Your task to perform on an android device: open app "Adobe Acrobat Reader" (install if not already installed) and enter user name: "nondescriptly@inbox.com" and password: "negating" Image 0: 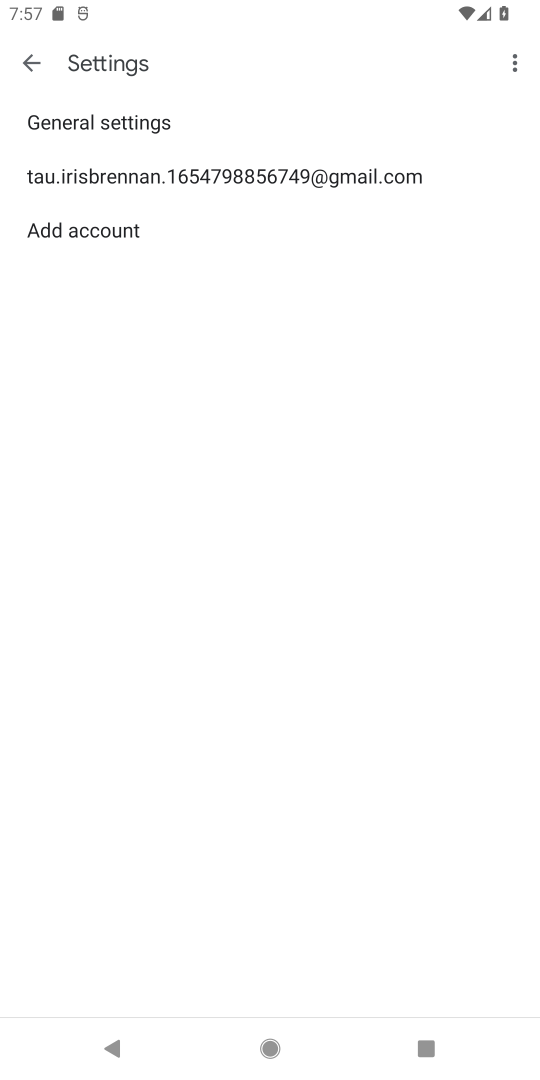
Step 0: press home button
Your task to perform on an android device: open app "Adobe Acrobat Reader" (install if not already installed) and enter user name: "nondescriptly@inbox.com" and password: "negating" Image 1: 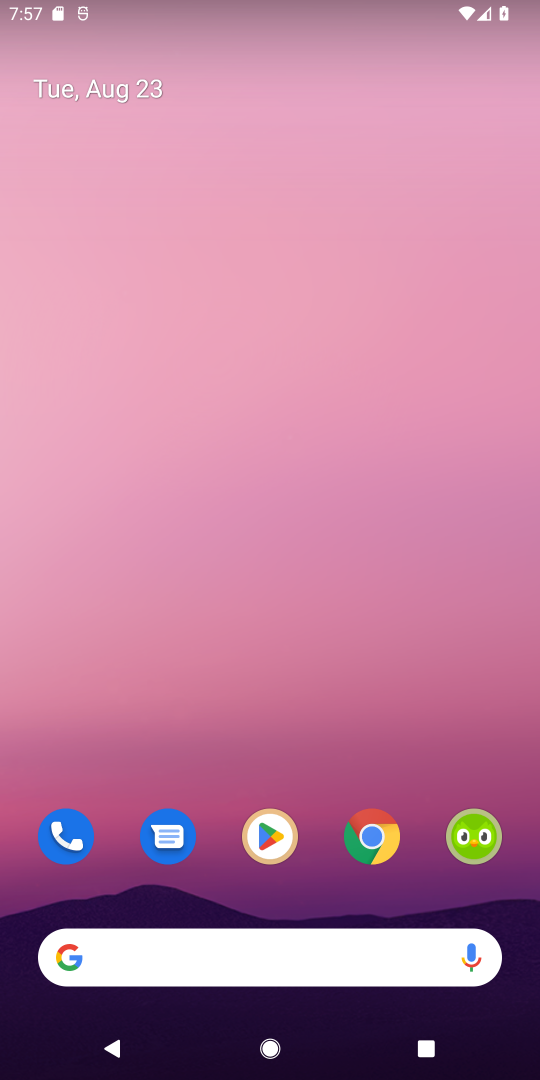
Step 1: click (263, 834)
Your task to perform on an android device: open app "Adobe Acrobat Reader" (install if not already installed) and enter user name: "nondescriptly@inbox.com" and password: "negating" Image 2: 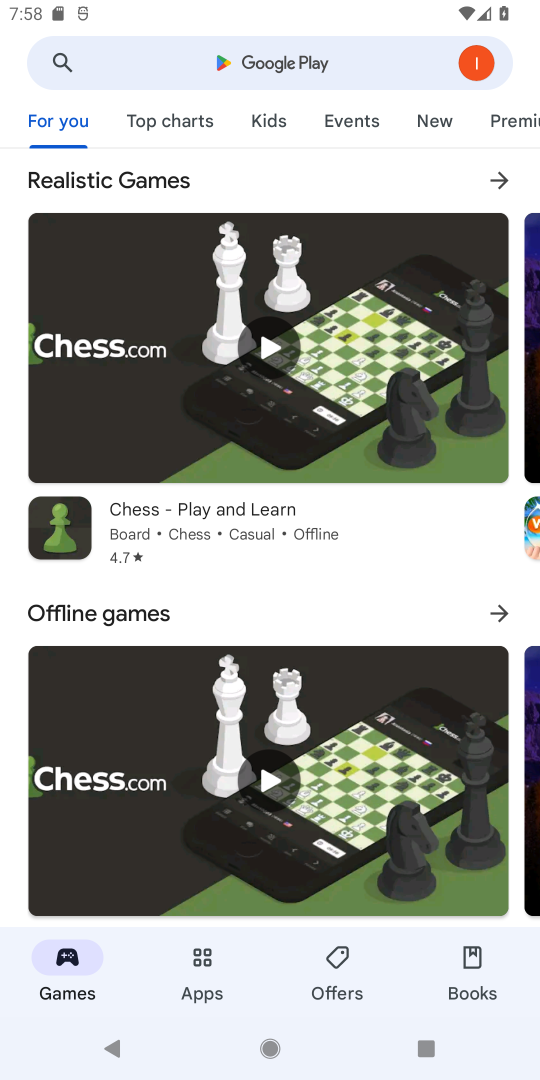
Step 2: click (385, 66)
Your task to perform on an android device: open app "Adobe Acrobat Reader" (install if not already installed) and enter user name: "nondescriptly@inbox.com" and password: "negating" Image 3: 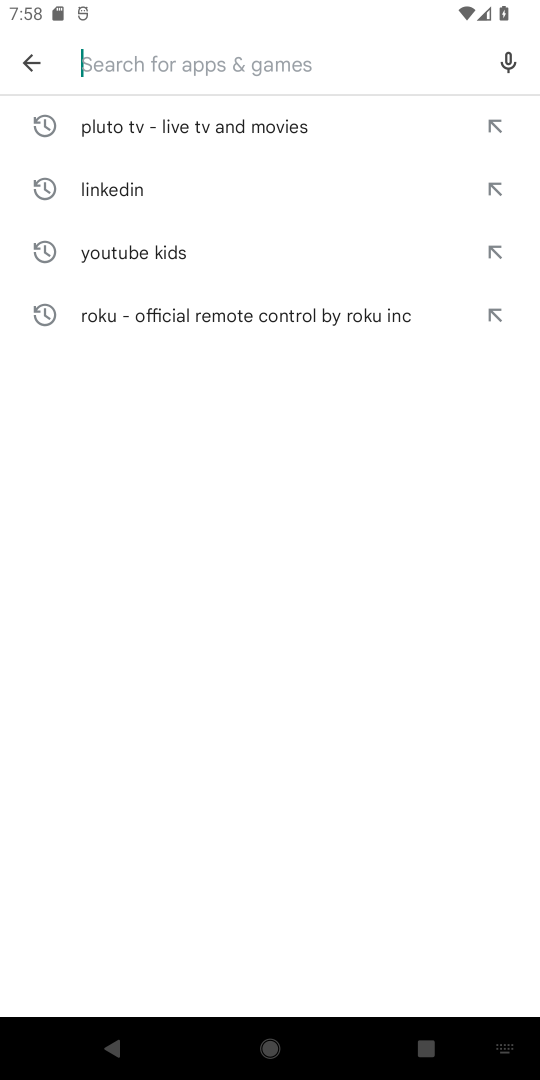
Step 3: type "Adobe Acrobat Reader"
Your task to perform on an android device: open app "Adobe Acrobat Reader" (install if not already installed) and enter user name: "nondescriptly@inbox.com" and password: "negating" Image 4: 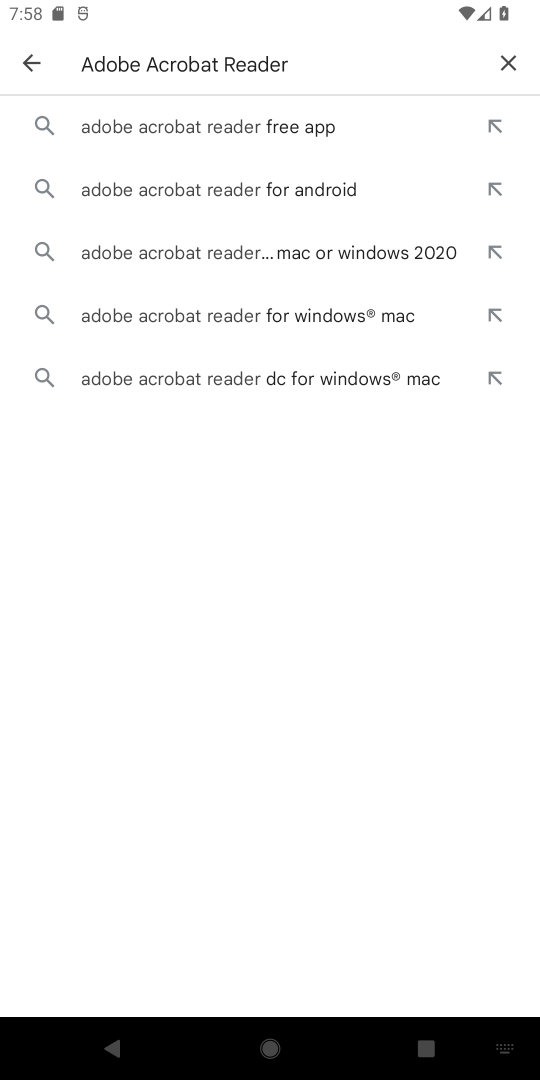
Step 4: click (296, 130)
Your task to perform on an android device: open app "Adobe Acrobat Reader" (install if not already installed) and enter user name: "nondescriptly@inbox.com" and password: "negating" Image 5: 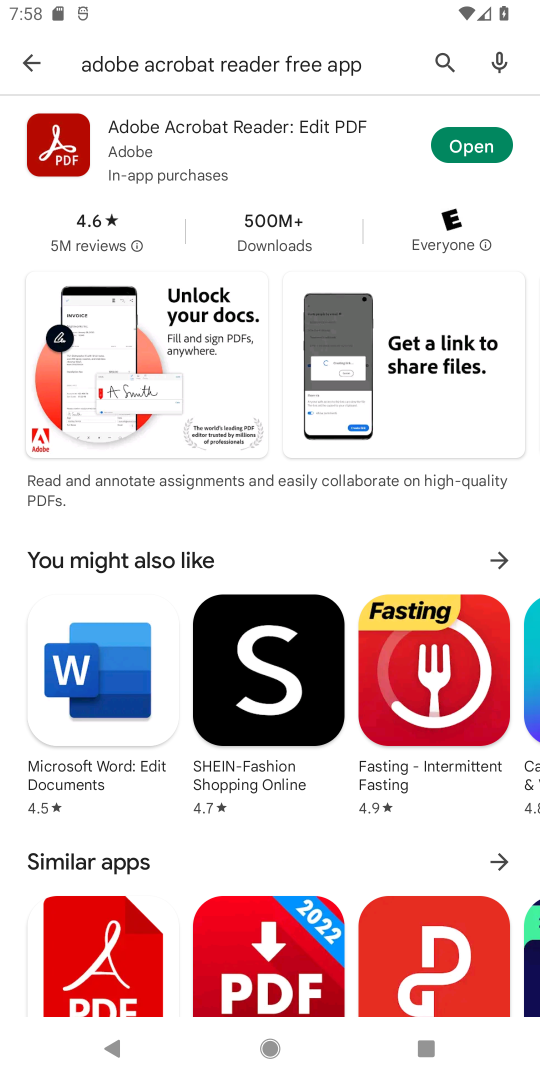
Step 5: click (468, 153)
Your task to perform on an android device: open app "Adobe Acrobat Reader" (install if not already installed) and enter user name: "nondescriptly@inbox.com" and password: "negating" Image 6: 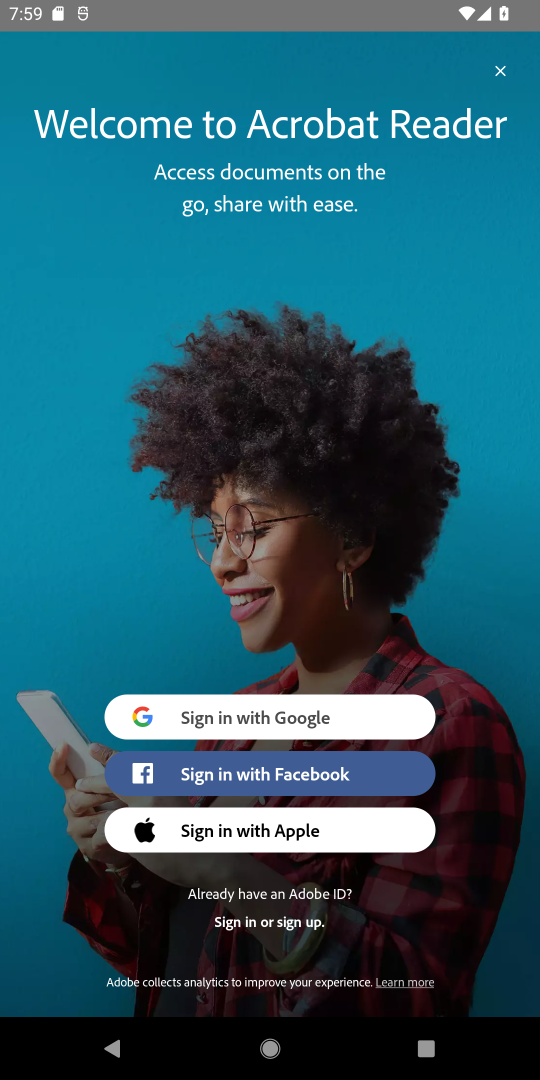
Step 6: click (275, 924)
Your task to perform on an android device: open app "Adobe Acrobat Reader" (install if not already installed) and enter user name: "nondescriptly@inbox.com" and password: "negating" Image 7: 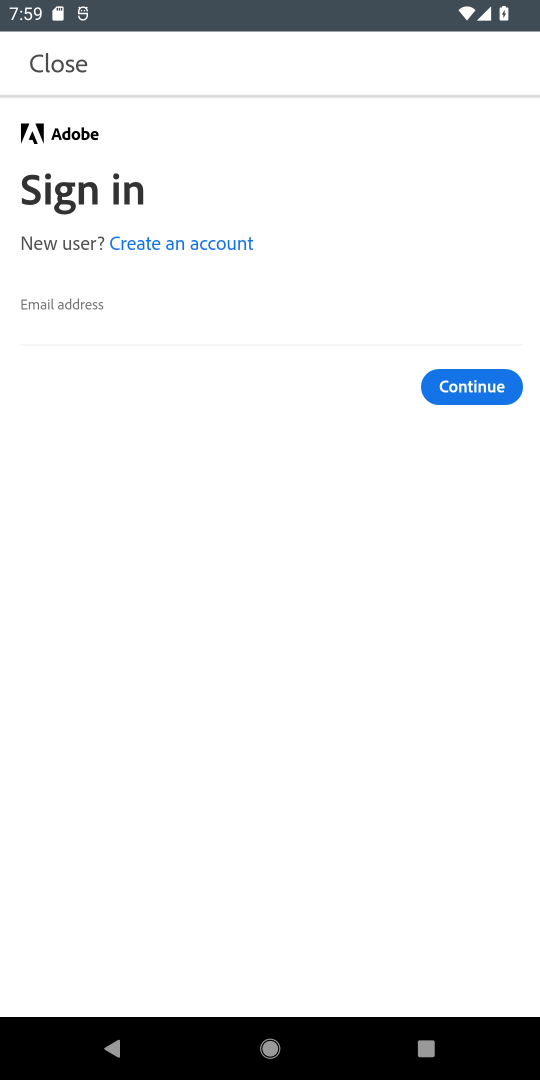
Step 7: click (75, 313)
Your task to perform on an android device: open app "Adobe Acrobat Reader" (install if not already installed) and enter user name: "nondescriptly@inbox.com" and password: "negating" Image 8: 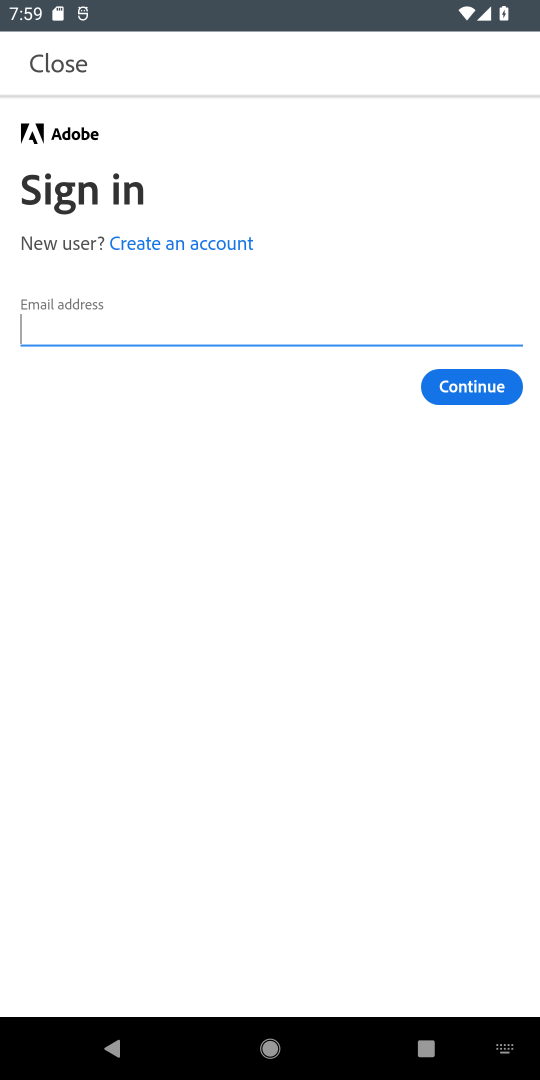
Step 8: type "nondescriptly@inbox.com"
Your task to perform on an android device: open app "Adobe Acrobat Reader" (install if not already installed) and enter user name: "nondescriptly@inbox.com" and password: "negating" Image 9: 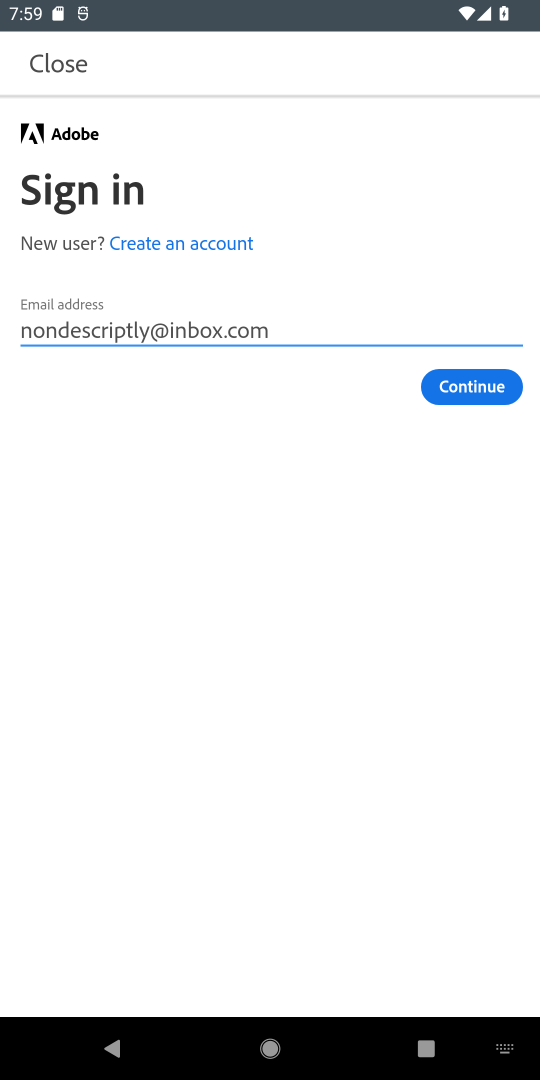
Step 9: click (465, 382)
Your task to perform on an android device: open app "Adobe Acrobat Reader" (install if not already installed) and enter user name: "nondescriptly@inbox.com" and password: "negating" Image 10: 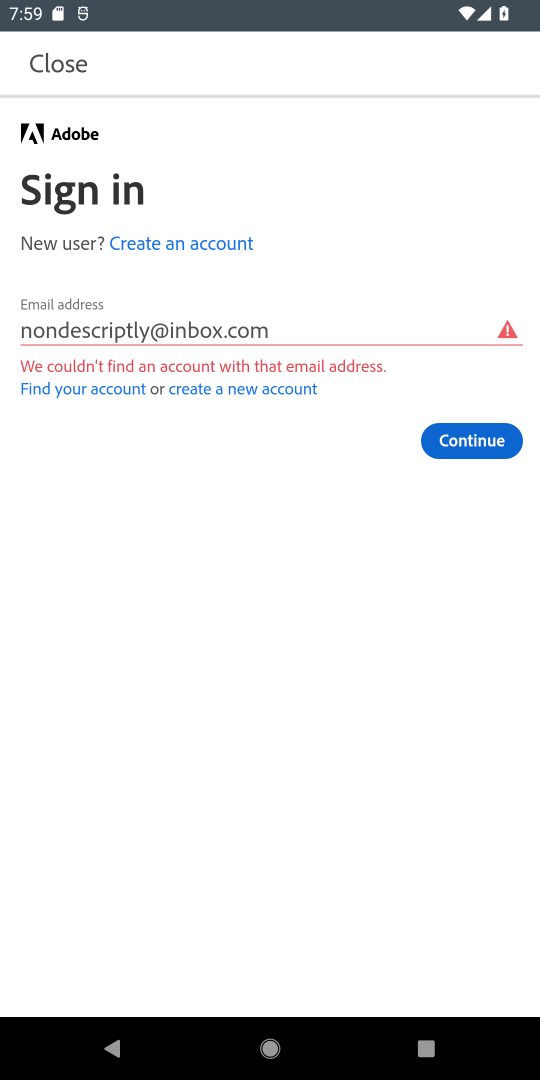
Step 10: task complete